Your task to perform on an android device: Open Google Chrome and open the bookmarks view Image 0: 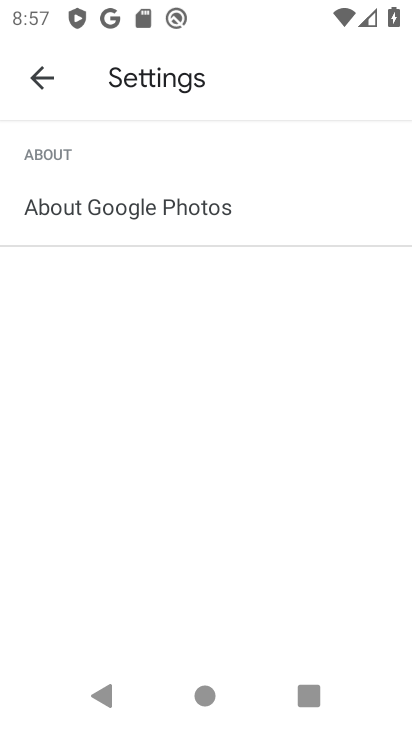
Step 0: press back button
Your task to perform on an android device: Open Google Chrome and open the bookmarks view Image 1: 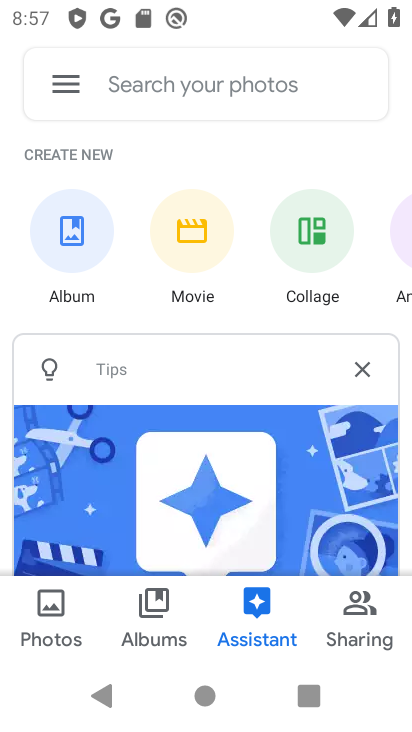
Step 1: press back button
Your task to perform on an android device: Open Google Chrome and open the bookmarks view Image 2: 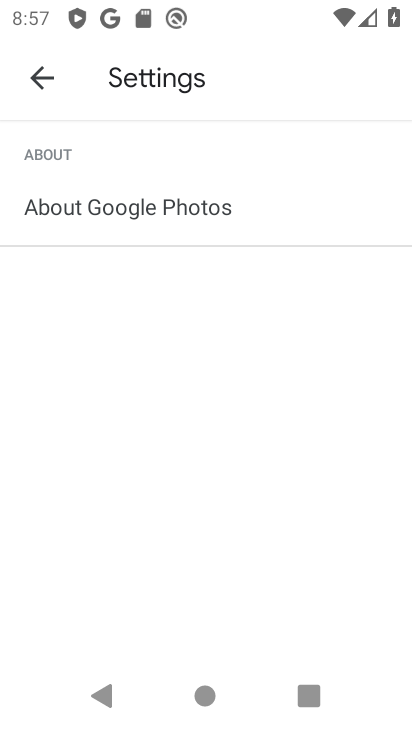
Step 2: press back button
Your task to perform on an android device: Open Google Chrome and open the bookmarks view Image 3: 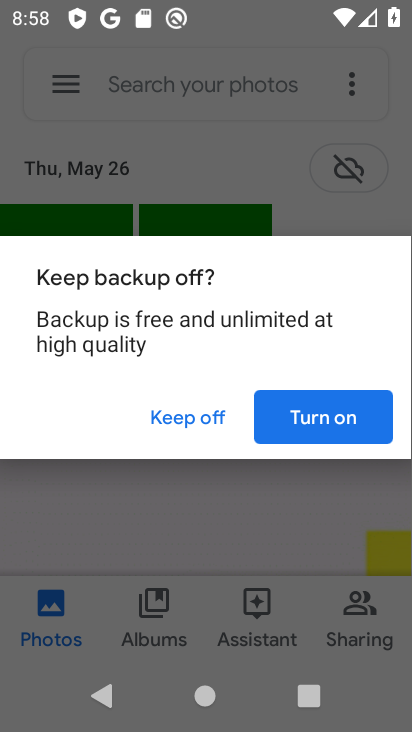
Step 3: press home button
Your task to perform on an android device: Open Google Chrome and open the bookmarks view Image 4: 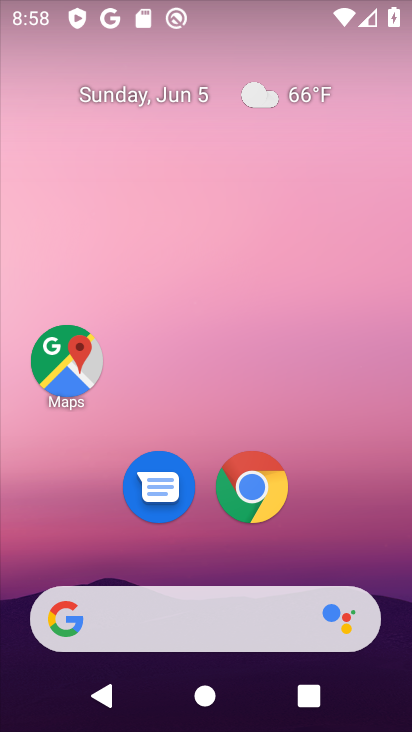
Step 4: click (259, 487)
Your task to perform on an android device: Open Google Chrome and open the bookmarks view Image 5: 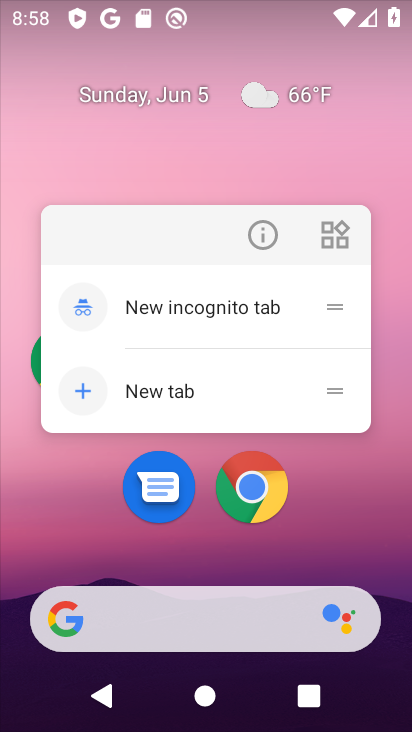
Step 5: click (258, 479)
Your task to perform on an android device: Open Google Chrome and open the bookmarks view Image 6: 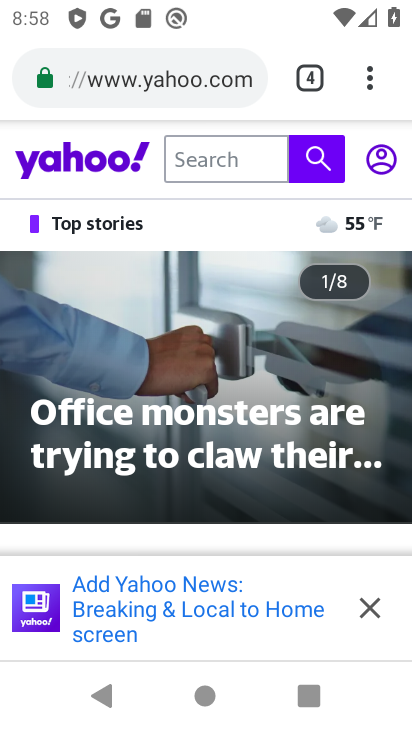
Step 6: task complete